Your task to perform on an android device: open the mobile data screen to see how much data has been used Image 0: 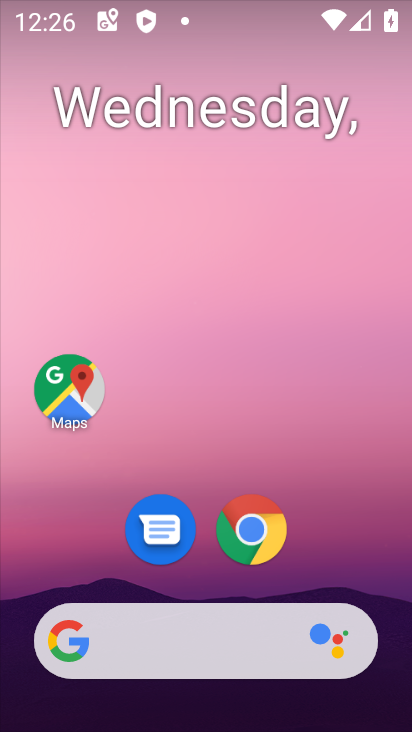
Step 0: drag from (368, 580) to (298, 214)
Your task to perform on an android device: open the mobile data screen to see how much data has been used Image 1: 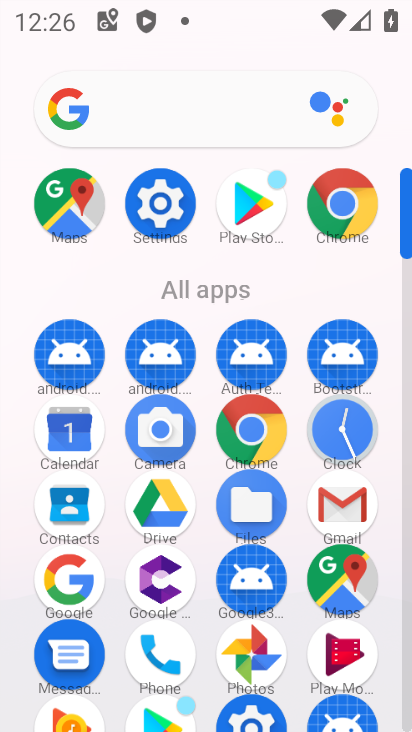
Step 1: click (404, 671)
Your task to perform on an android device: open the mobile data screen to see how much data has been used Image 2: 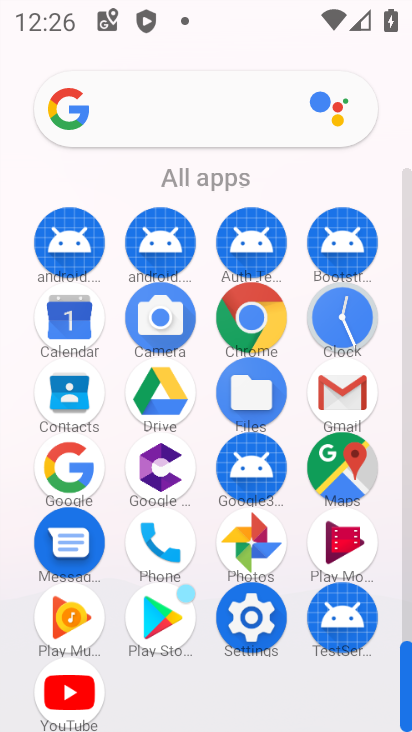
Step 2: click (252, 619)
Your task to perform on an android device: open the mobile data screen to see how much data has been used Image 3: 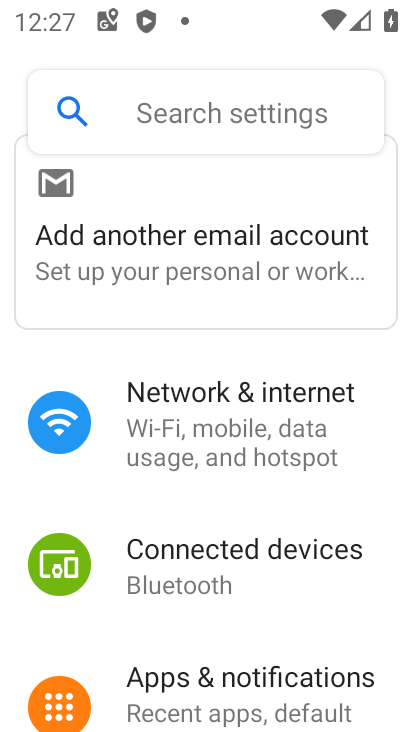
Step 3: click (201, 440)
Your task to perform on an android device: open the mobile data screen to see how much data has been used Image 4: 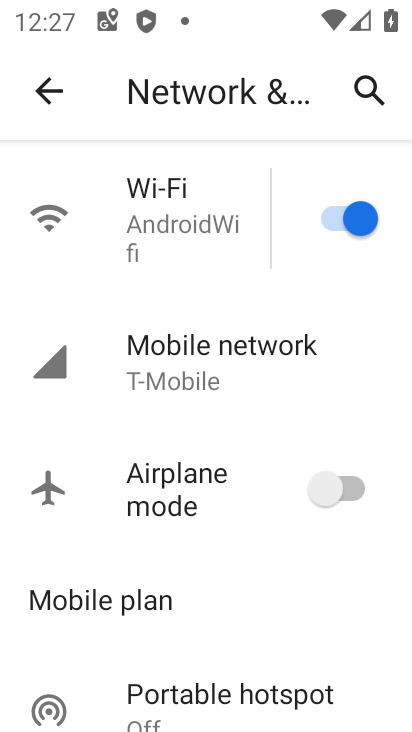
Step 4: click (175, 348)
Your task to perform on an android device: open the mobile data screen to see how much data has been used Image 5: 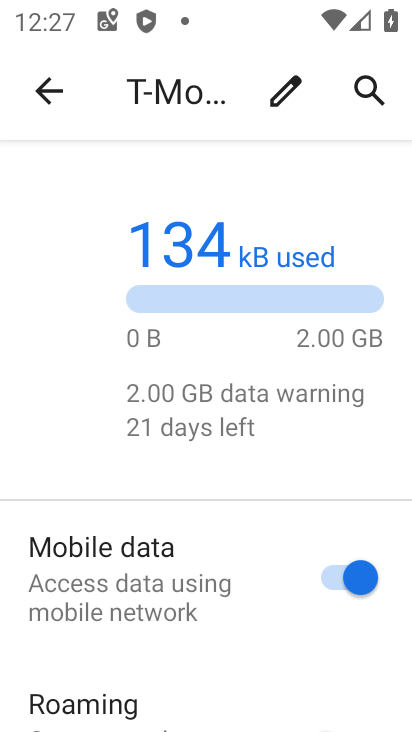
Step 5: task complete